Your task to perform on an android device: Open calendar and show me the third week of next month Image 0: 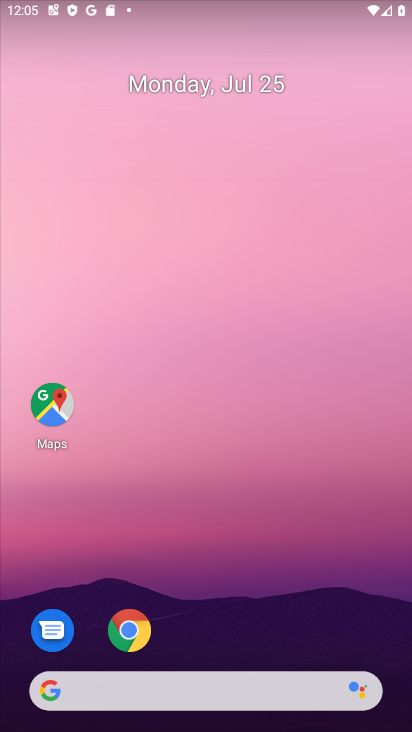
Step 0: press home button
Your task to perform on an android device: Open calendar and show me the third week of next month Image 1: 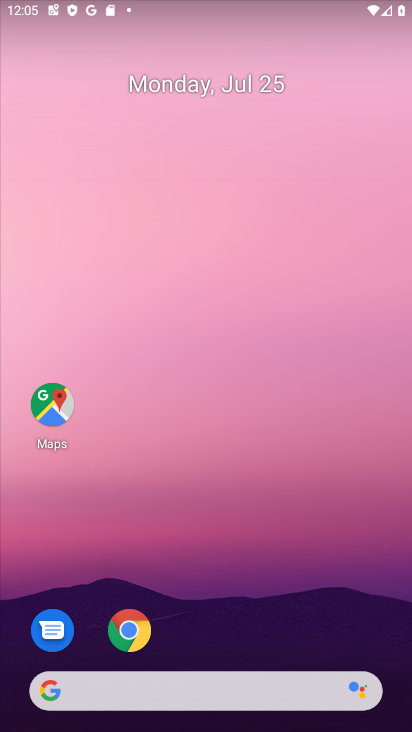
Step 1: drag from (246, 629) to (278, 7)
Your task to perform on an android device: Open calendar and show me the third week of next month Image 2: 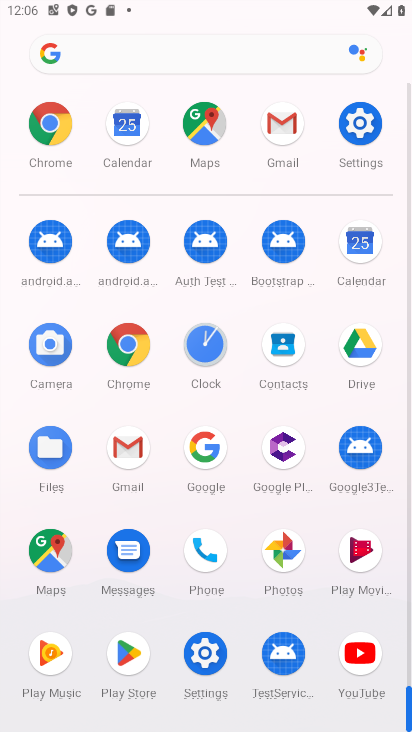
Step 2: click (356, 258)
Your task to perform on an android device: Open calendar and show me the third week of next month Image 3: 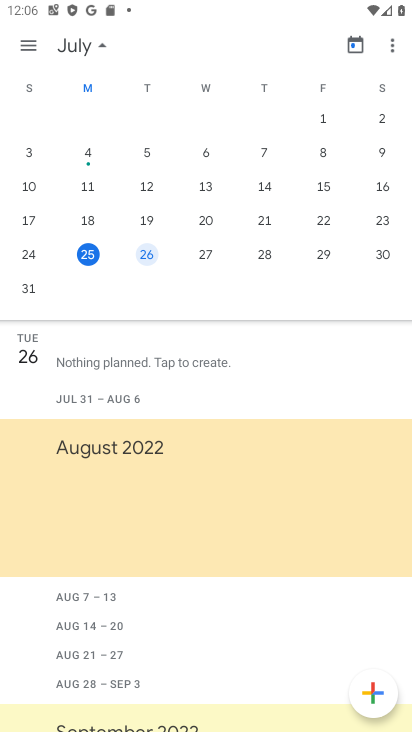
Step 3: drag from (282, 207) to (0, 152)
Your task to perform on an android device: Open calendar and show me the third week of next month Image 4: 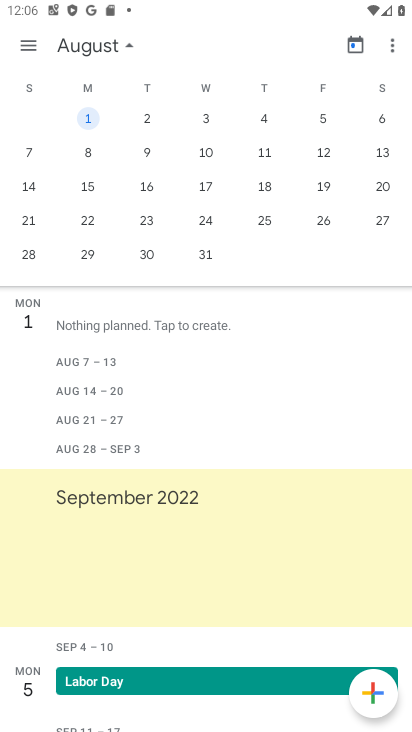
Step 4: click (83, 186)
Your task to perform on an android device: Open calendar and show me the third week of next month Image 5: 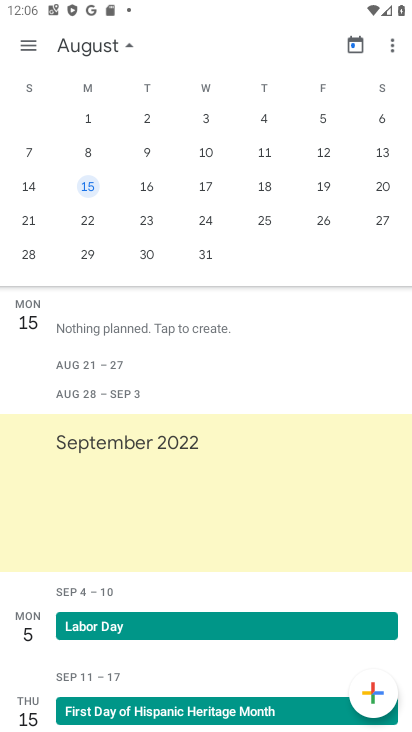
Step 5: task complete